Your task to perform on an android device: Go to Amazon Image 0: 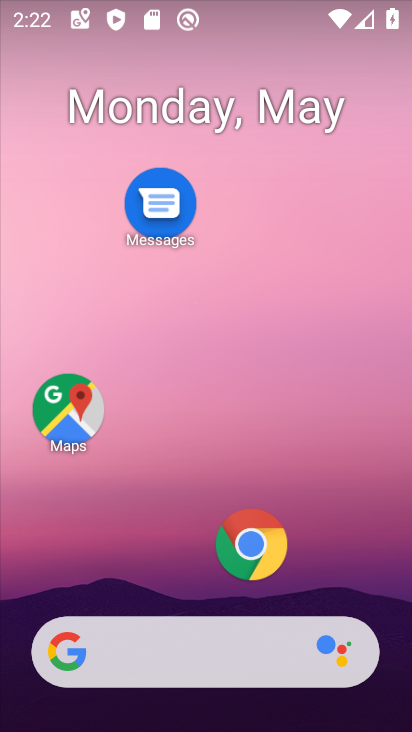
Step 0: click (255, 531)
Your task to perform on an android device: Go to Amazon Image 1: 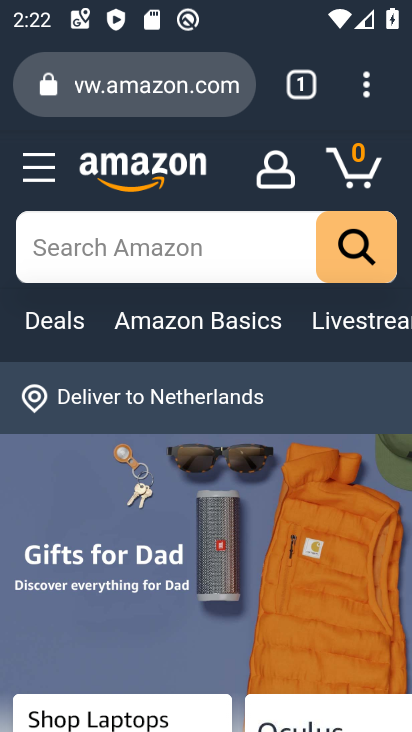
Step 1: task complete